Your task to perform on an android device: turn on bluetooth scan Image 0: 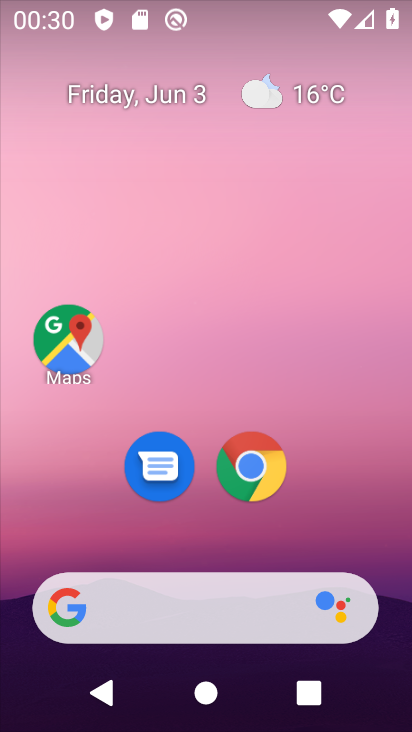
Step 0: drag from (103, 535) to (252, 123)
Your task to perform on an android device: turn on bluetooth scan Image 1: 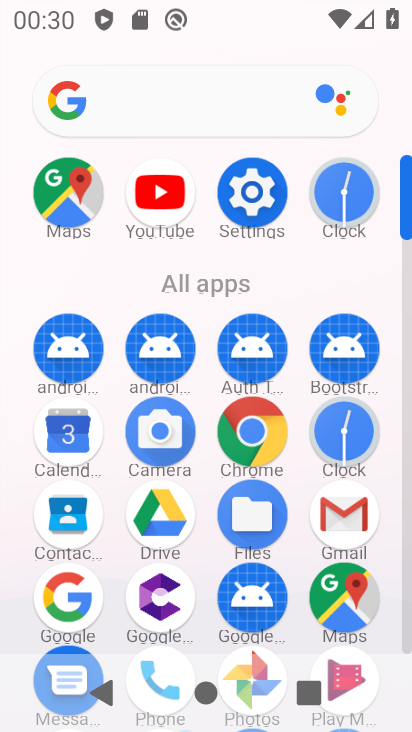
Step 1: drag from (103, 619) to (213, 329)
Your task to perform on an android device: turn on bluetooth scan Image 2: 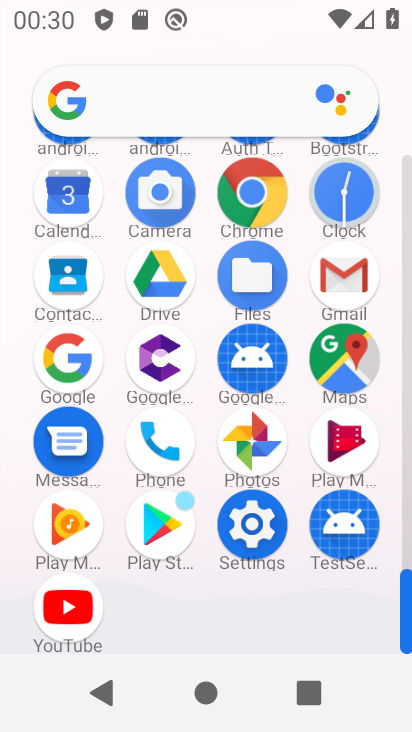
Step 2: click (262, 519)
Your task to perform on an android device: turn on bluetooth scan Image 3: 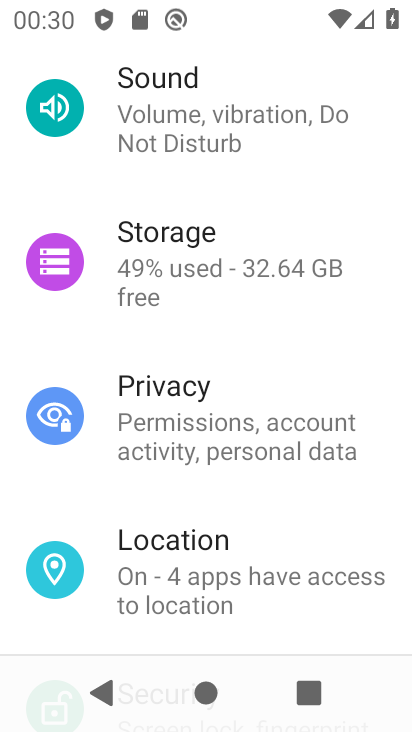
Step 3: drag from (207, 188) to (202, 560)
Your task to perform on an android device: turn on bluetooth scan Image 4: 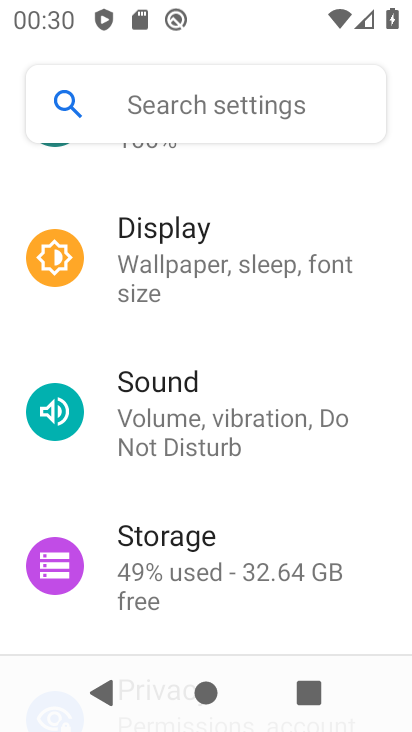
Step 4: drag from (175, 269) to (172, 627)
Your task to perform on an android device: turn on bluetooth scan Image 5: 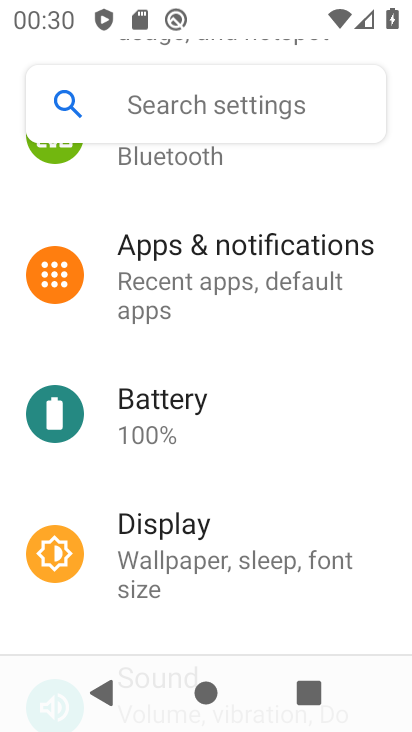
Step 5: drag from (201, 260) to (186, 638)
Your task to perform on an android device: turn on bluetooth scan Image 6: 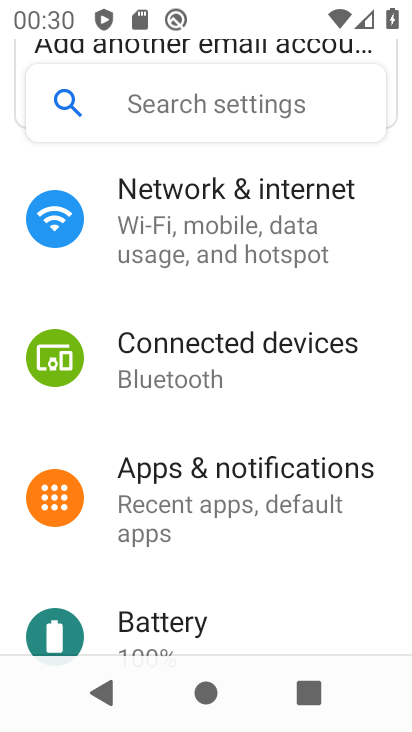
Step 6: click (217, 364)
Your task to perform on an android device: turn on bluetooth scan Image 7: 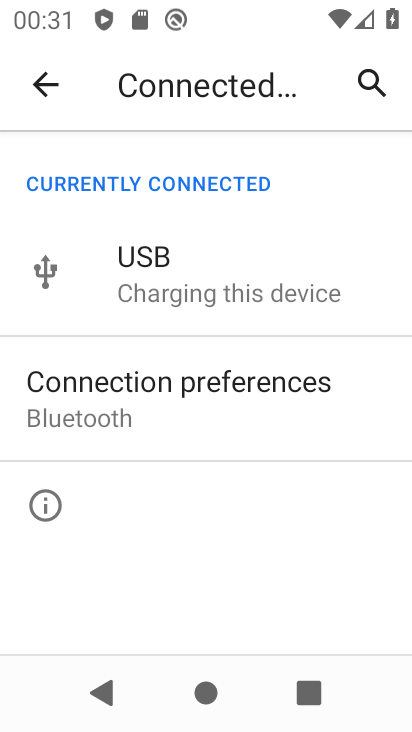
Step 7: click (212, 385)
Your task to perform on an android device: turn on bluetooth scan Image 8: 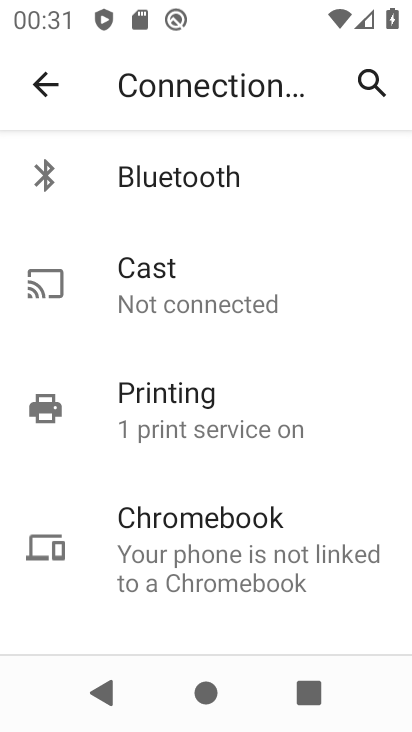
Step 8: click (223, 198)
Your task to perform on an android device: turn on bluetooth scan Image 9: 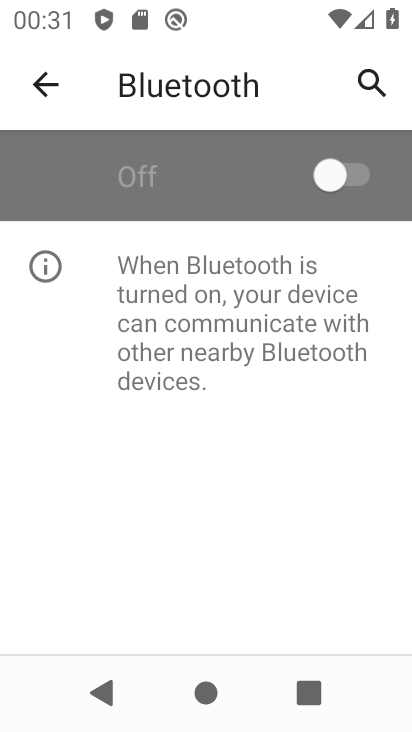
Step 9: click (373, 190)
Your task to perform on an android device: turn on bluetooth scan Image 10: 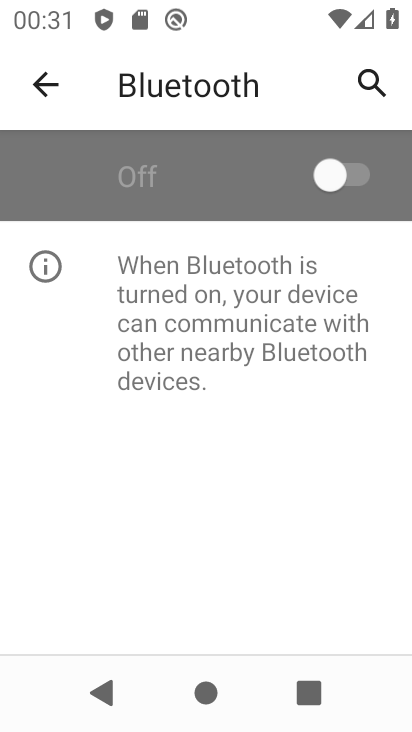
Step 10: task complete